Your task to perform on an android device: Search for "razer blade" on target, select the first entry, and add it to the cart. Image 0: 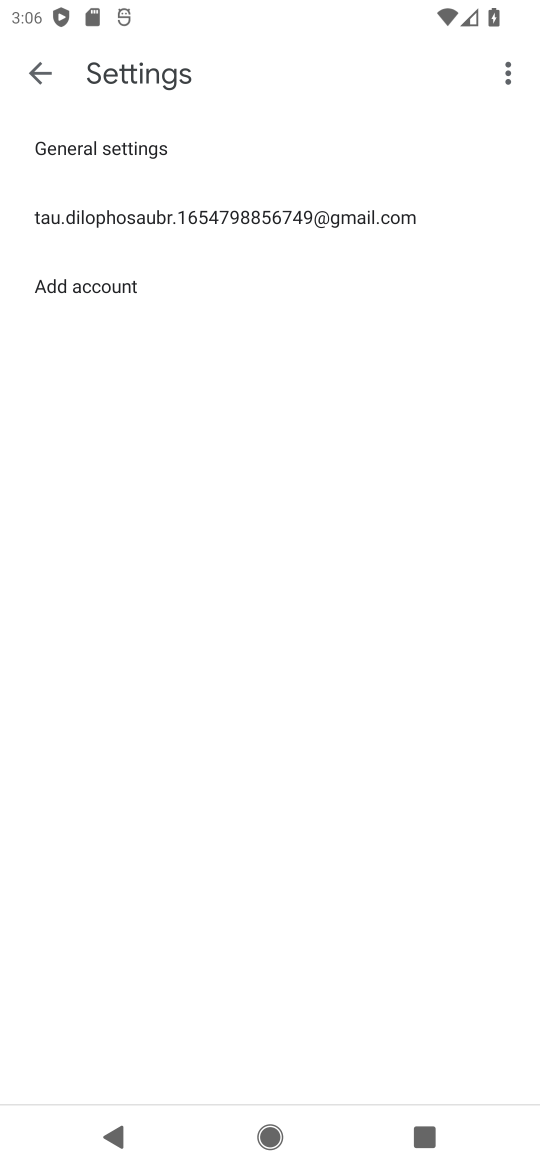
Step 0: press home button
Your task to perform on an android device: Search for "razer blade" on target, select the first entry, and add it to the cart. Image 1: 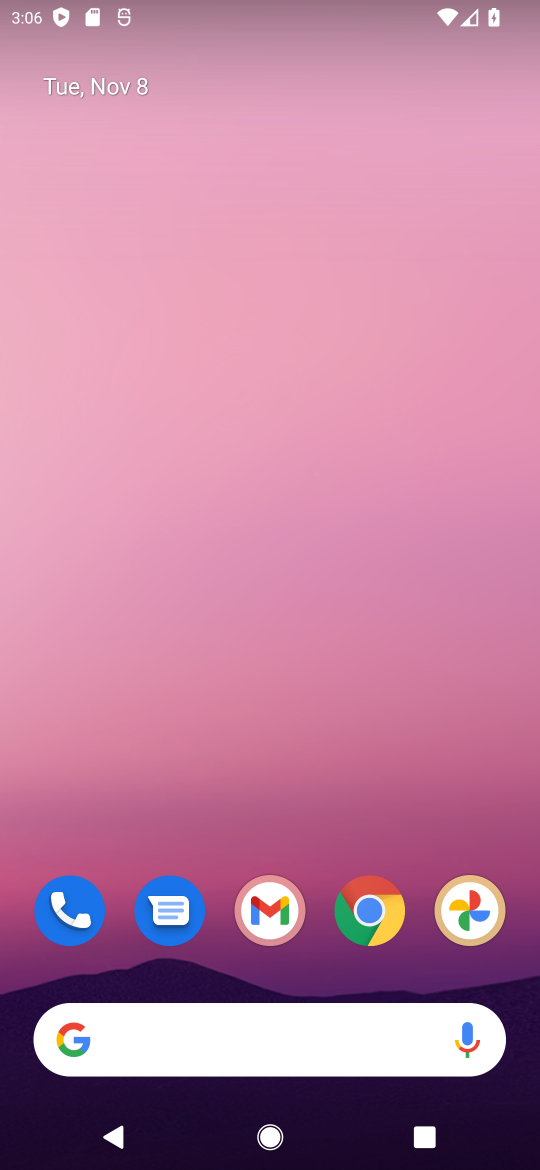
Step 1: drag from (319, 984) to (369, 182)
Your task to perform on an android device: Search for "razer blade" on target, select the first entry, and add it to the cart. Image 2: 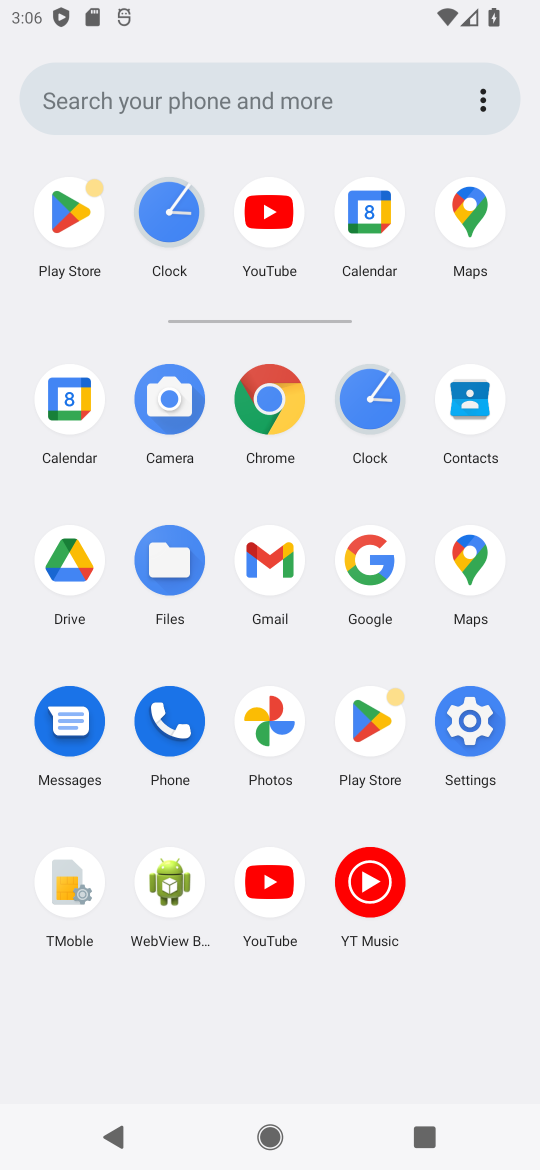
Step 2: click (280, 389)
Your task to perform on an android device: Search for "razer blade" on target, select the first entry, and add it to the cart. Image 3: 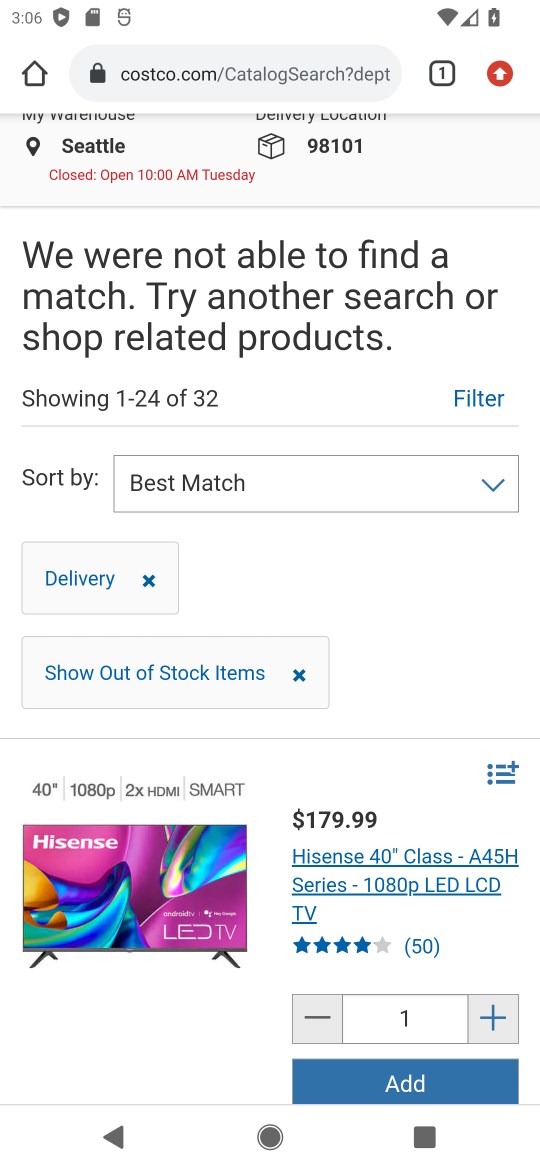
Step 3: click (296, 57)
Your task to perform on an android device: Search for "razer blade" on target, select the first entry, and add it to the cart. Image 4: 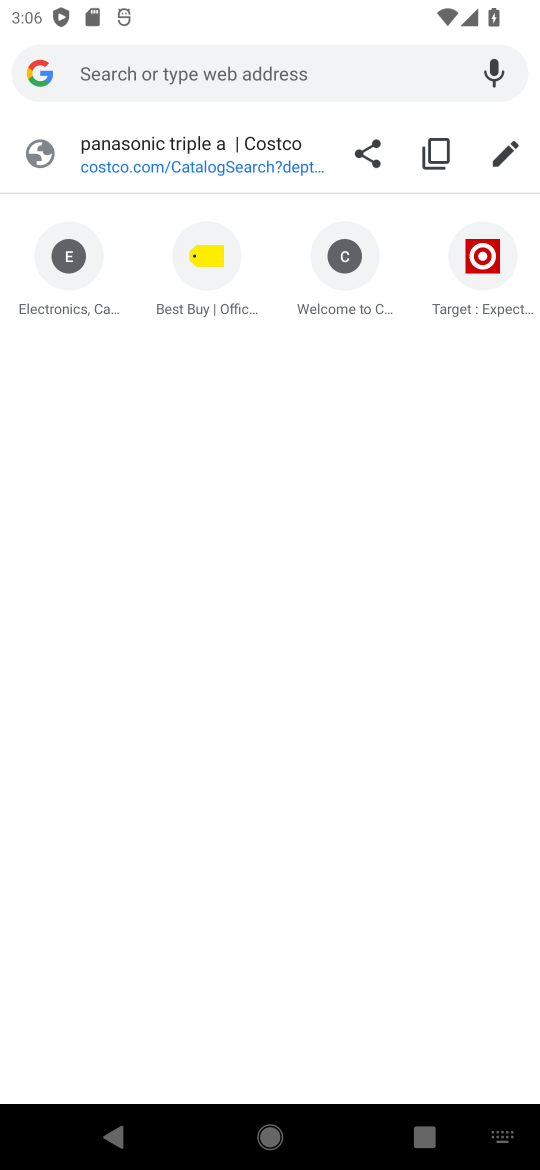
Step 4: press enter
Your task to perform on an android device: Search for "razer blade" on target, select the first entry, and add it to the cart. Image 5: 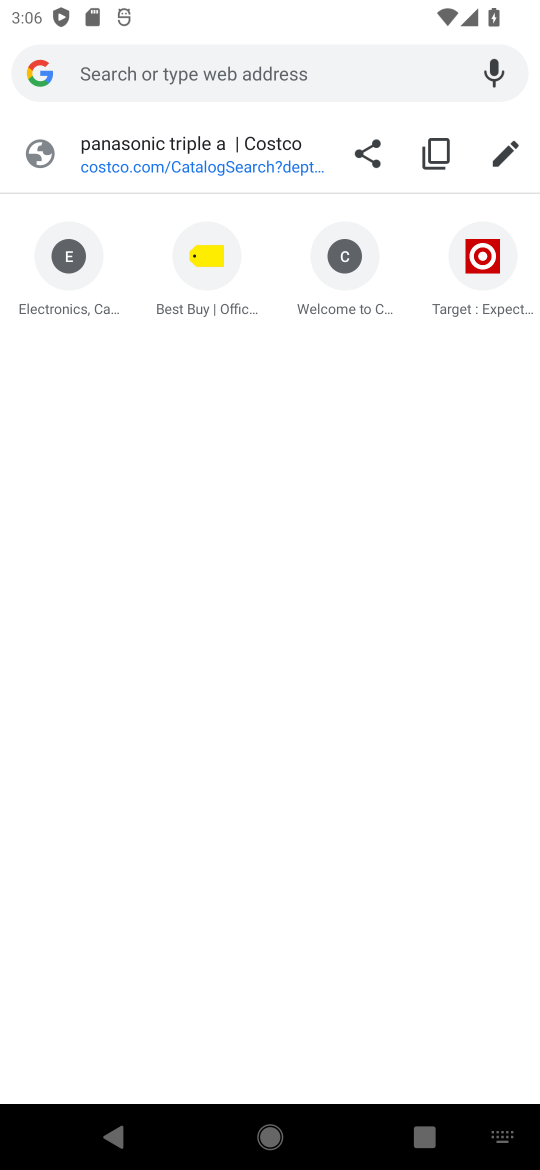
Step 5: type "target.com"
Your task to perform on an android device: Search for "razer blade" on target, select the first entry, and add it to the cart. Image 6: 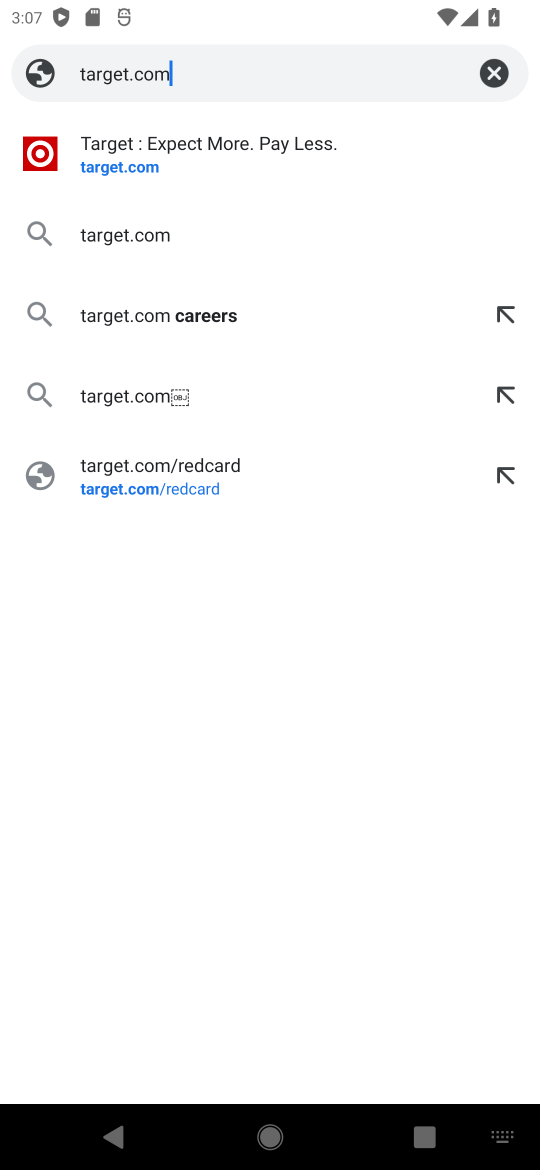
Step 6: press enter
Your task to perform on an android device: Search for "razer blade" on target, select the first entry, and add it to the cart. Image 7: 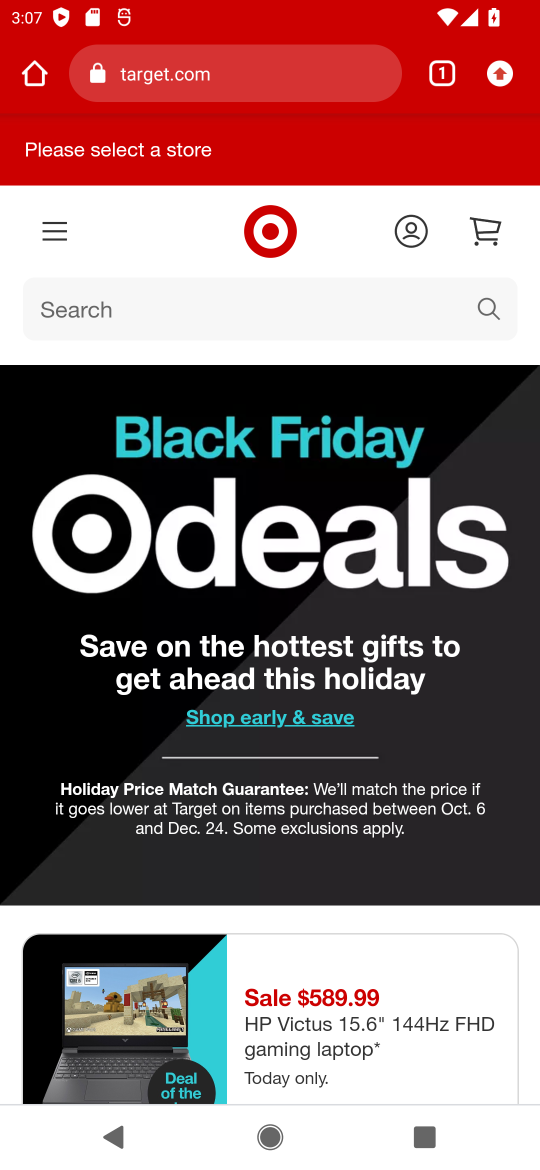
Step 7: click (260, 312)
Your task to perform on an android device: Search for "razer blade" on target, select the first entry, and add it to the cart. Image 8: 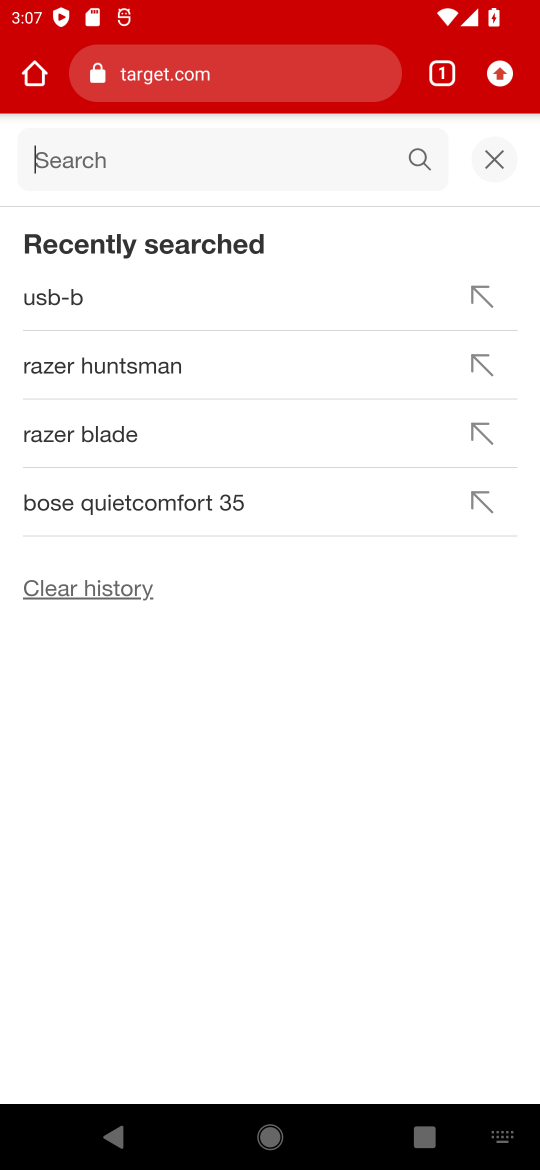
Step 8: type "razer blade"
Your task to perform on an android device: Search for "razer blade" on target, select the first entry, and add it to the cart. Image 9: 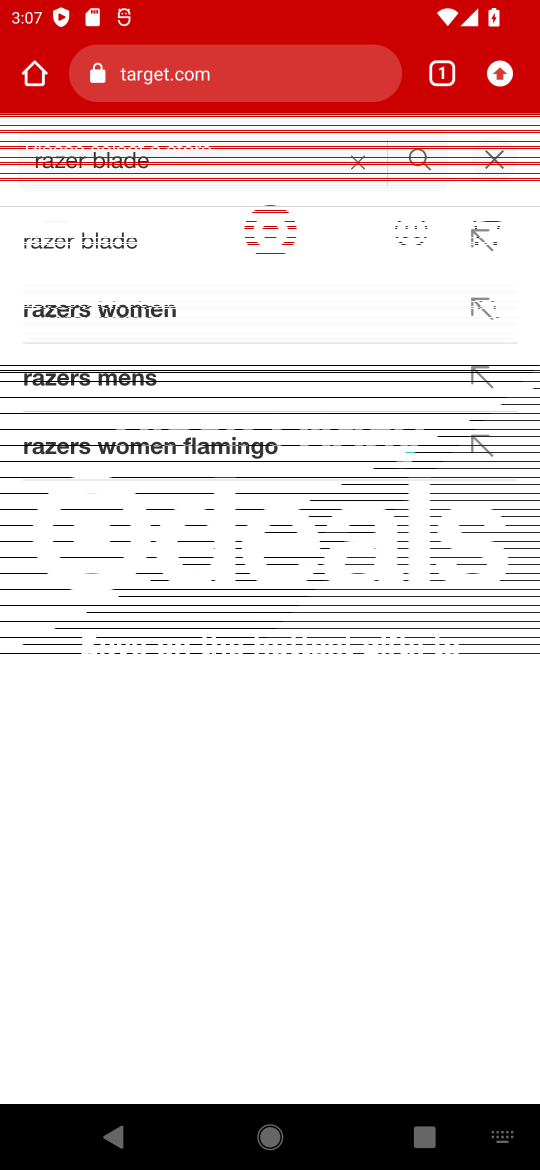
Step 9: press enter
Your task to perform on an android device: Search for "razer blade" on target, select the first entry, and add it to the cart. Image 10: 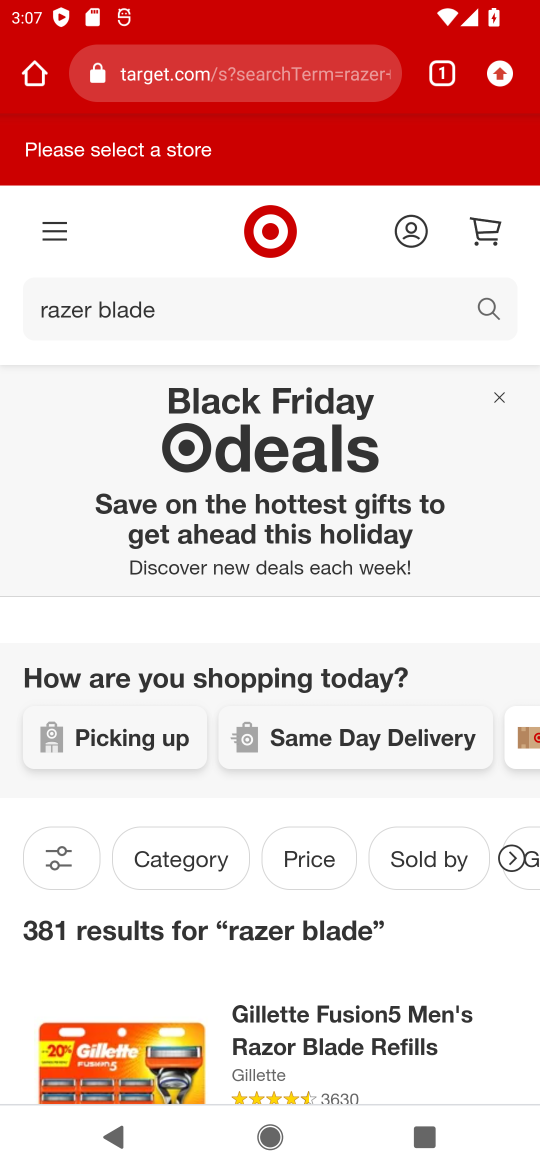
Step 10: task complete